Your task to perform on an android device: Check the news Image 0: 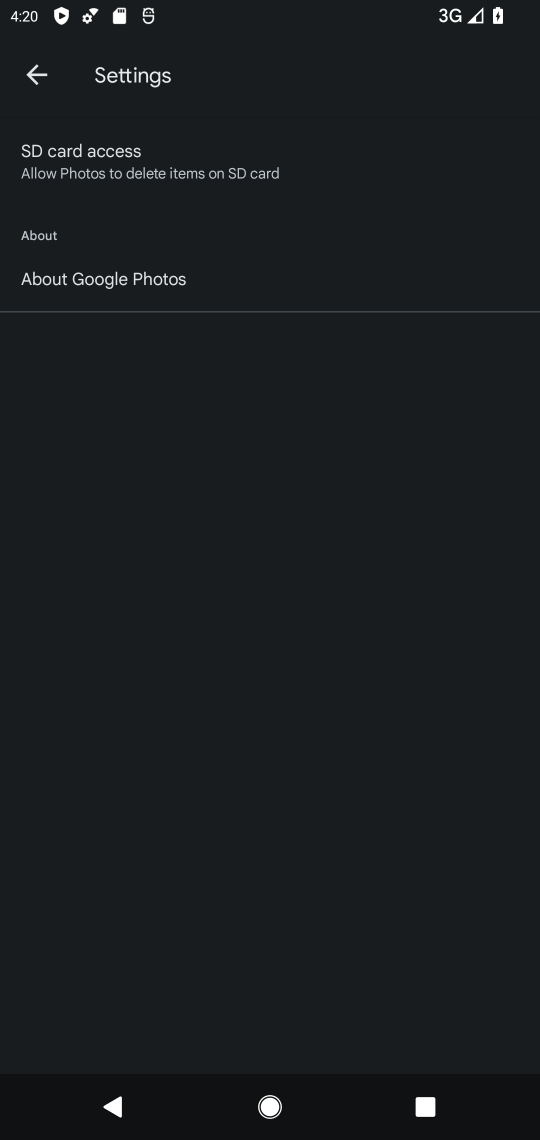
Step 0: task complete